Your task to perform on an android device: Check the news Image 0: 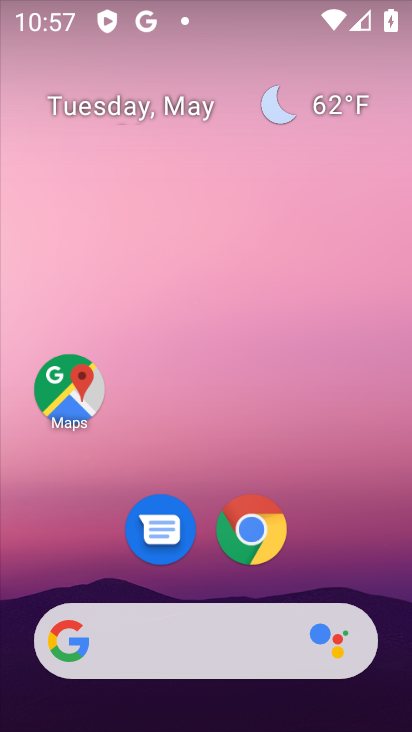
Step 0: click (154, 639)
Your task to perform on an android device: Check the news Image 1: 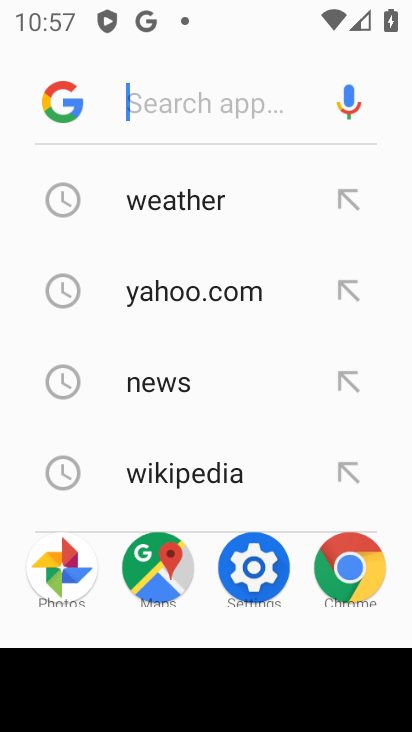
Step 1: click (171, 385)
Your task to perform on an android device: Check the news Image 2: 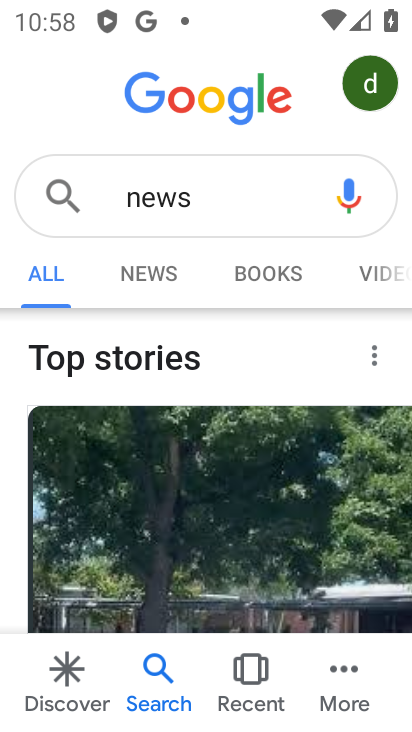
Step 2: task complete